Your task to perform on an android device: Add "logitech g502" to the cart on costco Image 0: 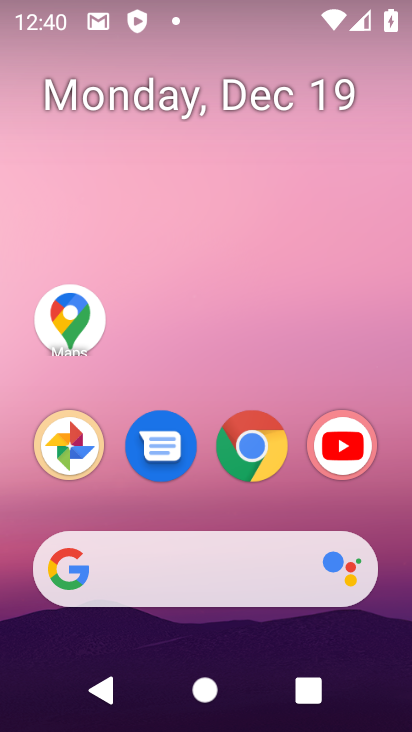
Step 0: click (251, 444)
Your task to perform on an android device: Add "logitech g502" to the cart on costco Image 1: 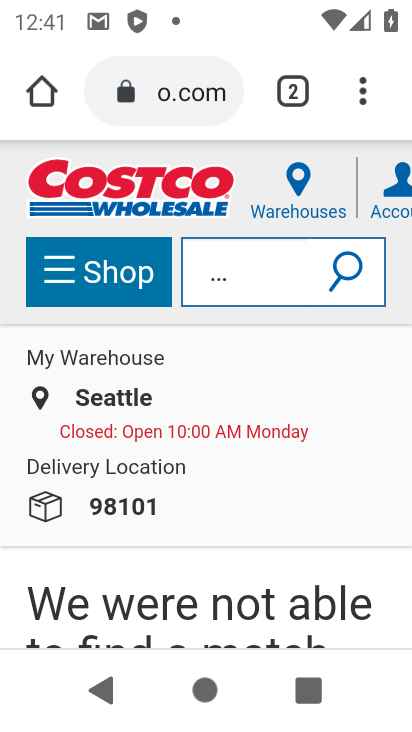
Step 1: click (146, 90)
Your task to perform on an android device: Add "logitech g502" to the cart on costco Image 2: 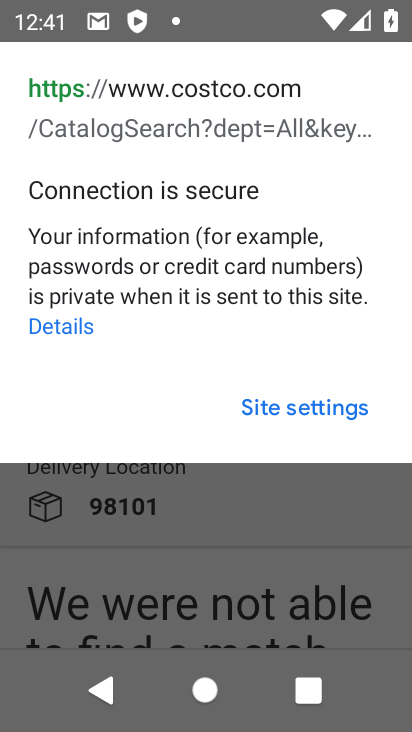
Step 2: press back button
Your task to perform on an android device: Add "logitech g502" to the cart on costco Image 3: 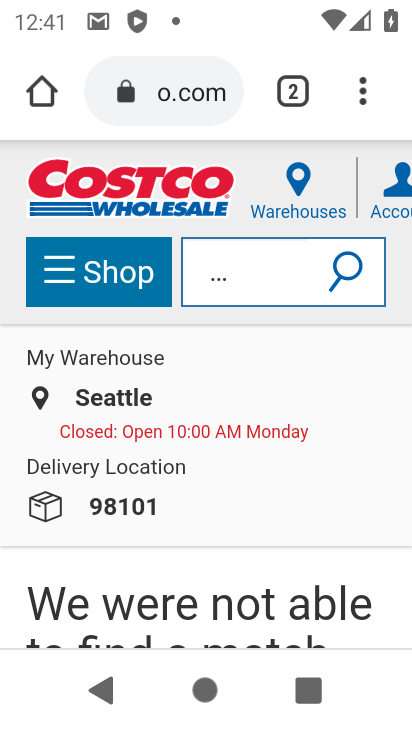
Step 3: click (208, 78)
Your task to perform on an android device: Add "logitech g502" to the cart on costco Image 4: 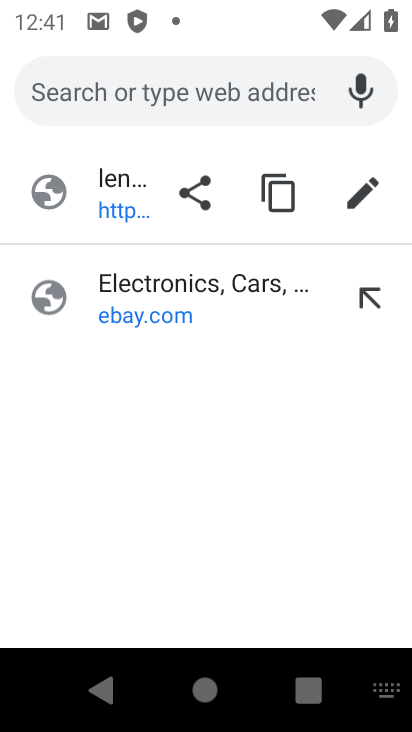
Step 4: press back button
Your task to perform on an android device: Add "logitech g502" to the cart on costco Image 5: 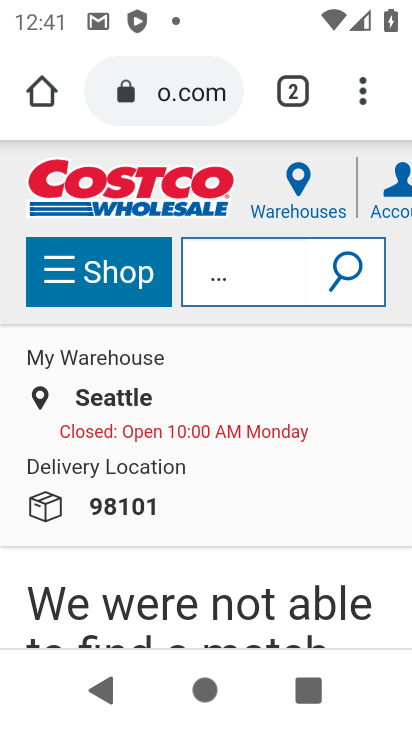
Step 5: click (242, 264)
Your task to perform on an android device: Add "logitech g502" to the cart on costco Image 6: 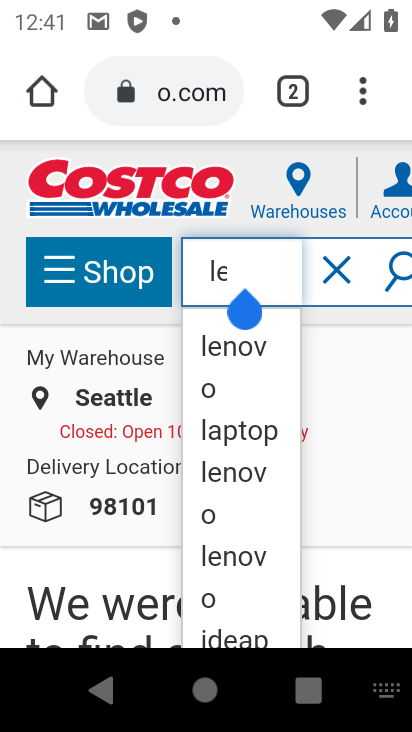
Step 6: type "logitech g502"
Your task to perform on an android device: Add "logitech g502" to the cart on costco Image 7: 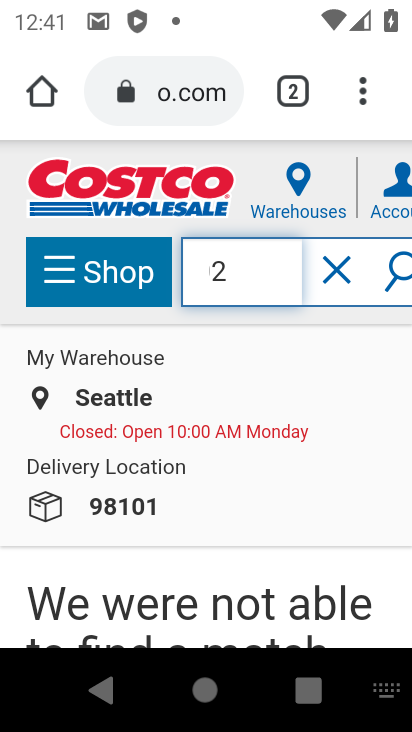
Step 7: click (409, 262)
Your task to perform on an android device: Add "logitech g502" to the cart on costco Image 8: 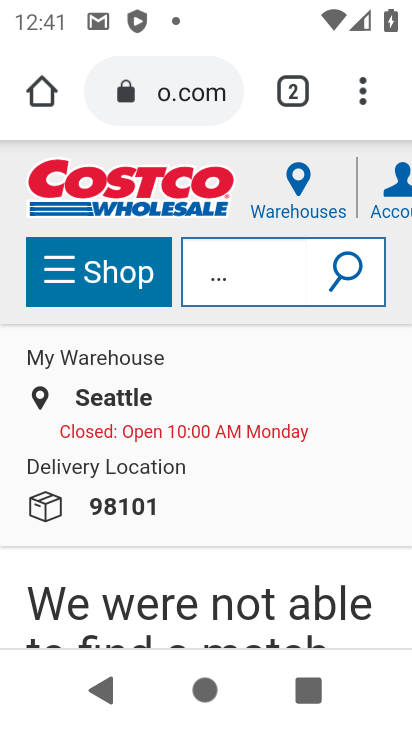
Step 8: task complete